Your task to perform on an android device: clear all cookies in the chrome app Image 0: 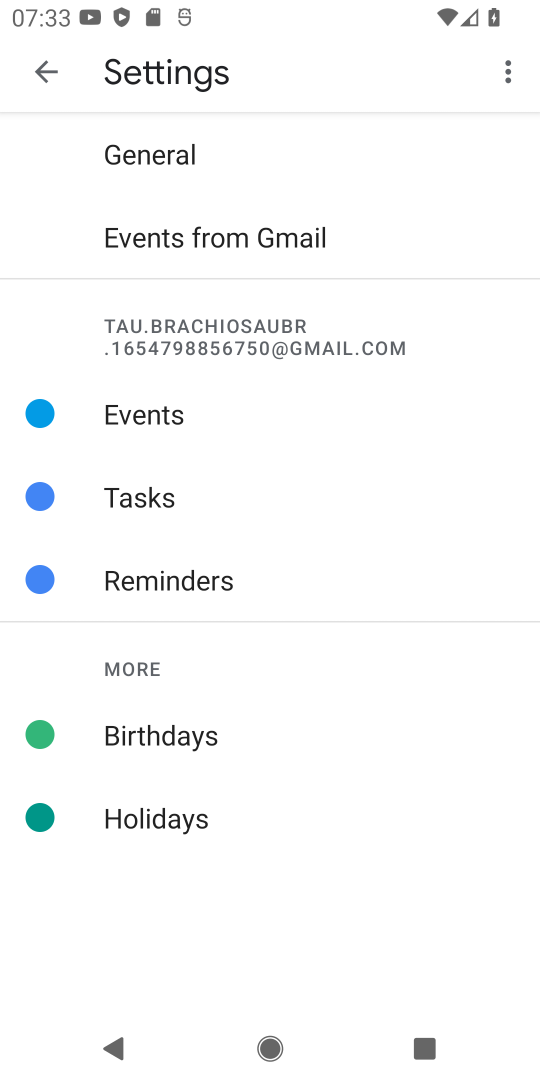
Step 0: press home button
Your task to perform on an android device: clear all cookies in the chrome app Image 1: 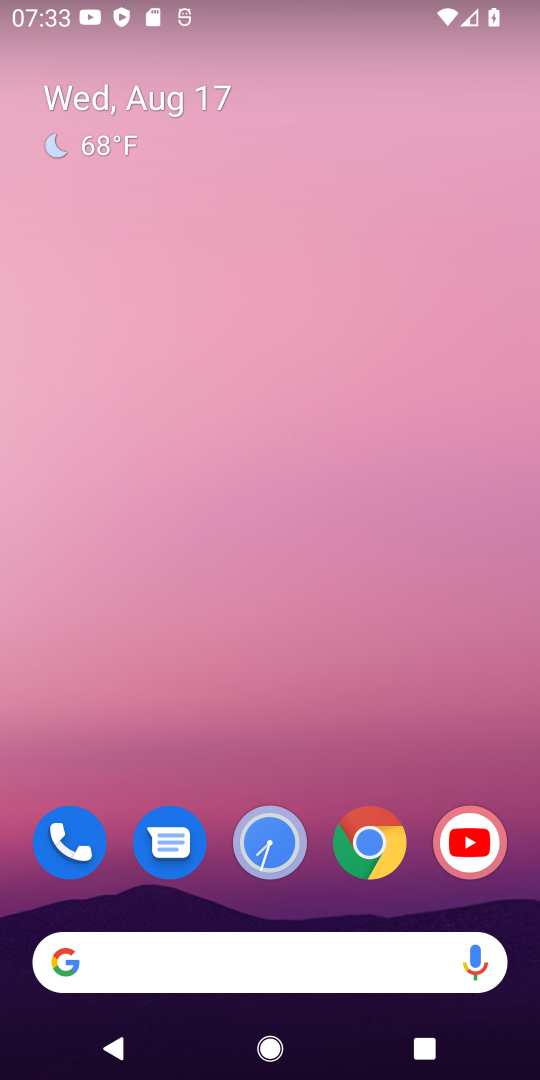
Step 1: click (366, 837)
Your task to perform on an android device: clear all cookies in the chrome app Image 2: 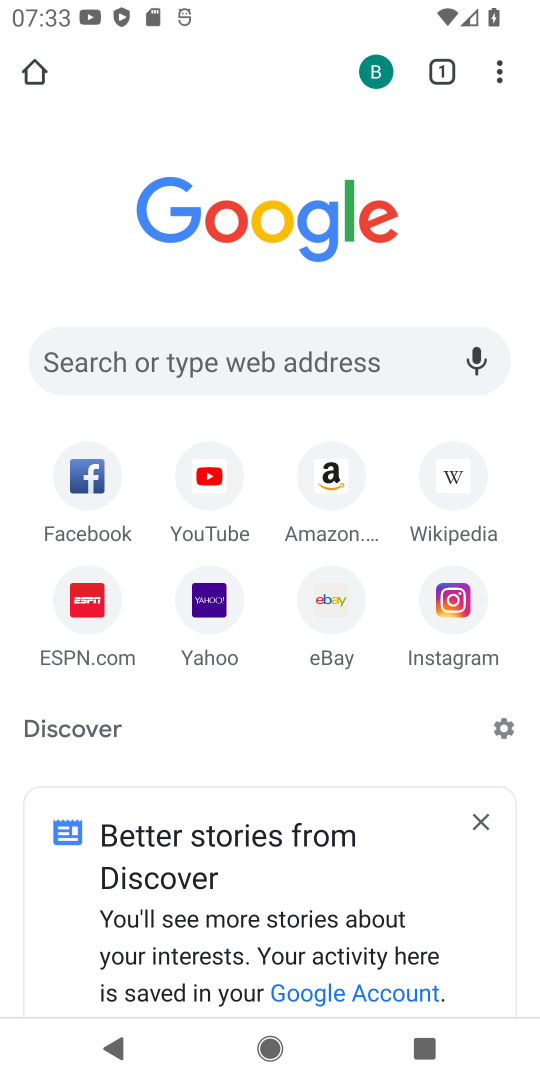
Step 2: click (500, 78)
Your task to perform on an android device: clear all cookies in the chrome app Image 3: 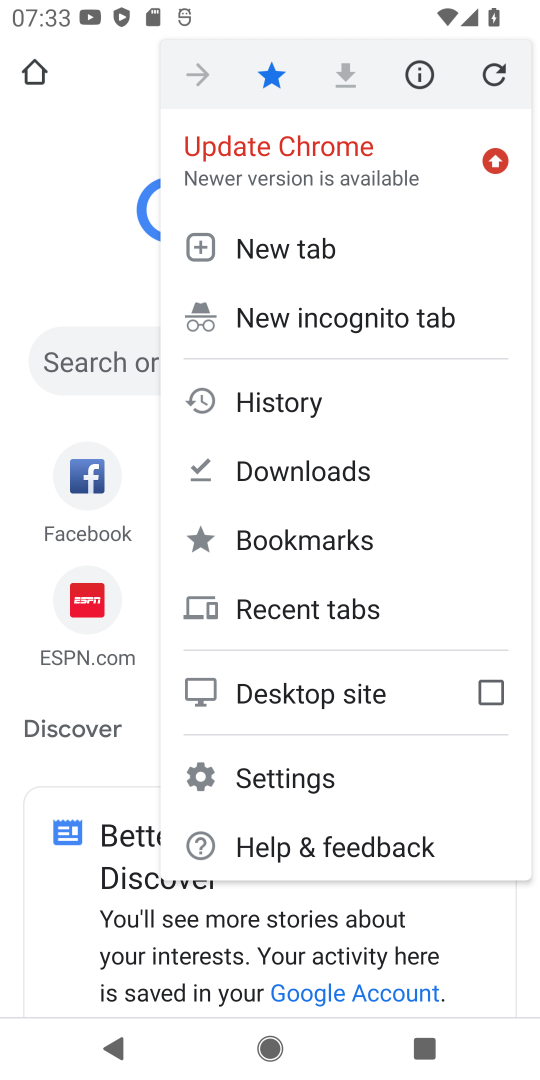
Step 3: click (314, 776)
Your task to perform on an android device: clear all cookies in the chrome app Image 4: 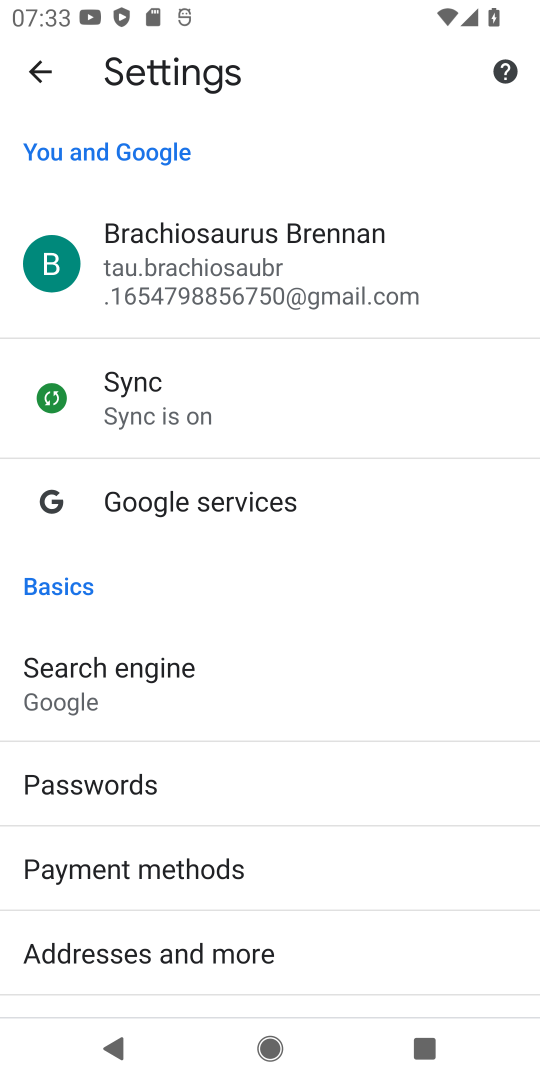
Step 4: drag from (285, 747) to (385, 76)
Your task to perform on an android device: clear all cookies in the chrome app Image 5: 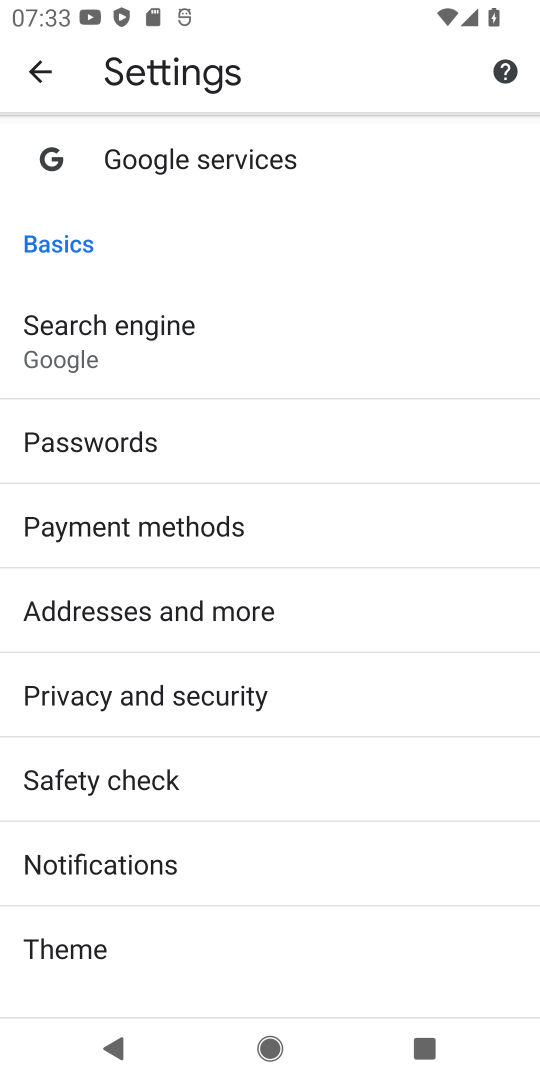
Step 5: click (266, 694)
Your task to perform on an android device: clear all cookies in the chrome app Image 6: 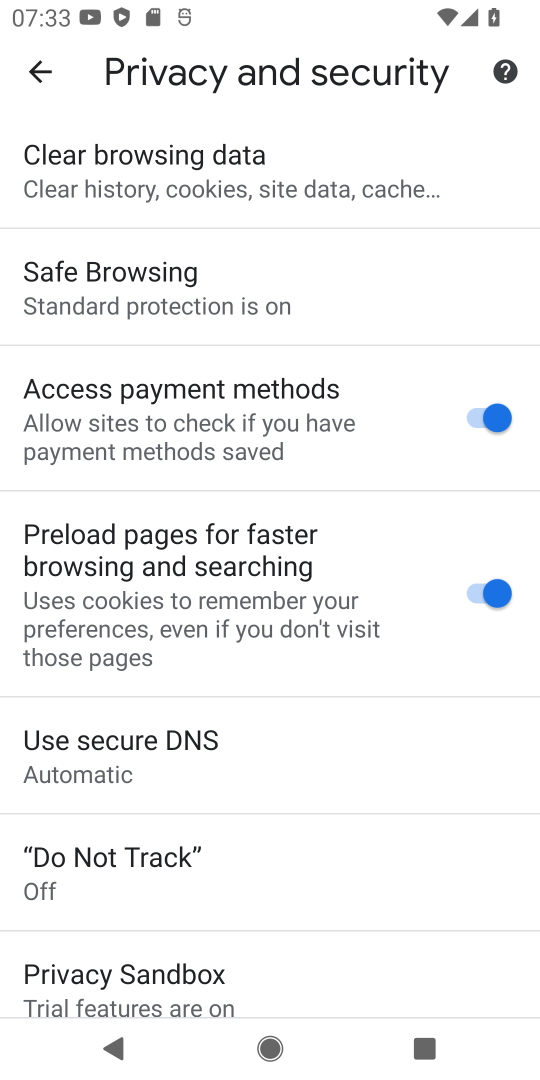
Step 6: drag from (275, 778) to (303, 205)
Your task to perform on an android device: clear all cookies in the chrome app Image 7: 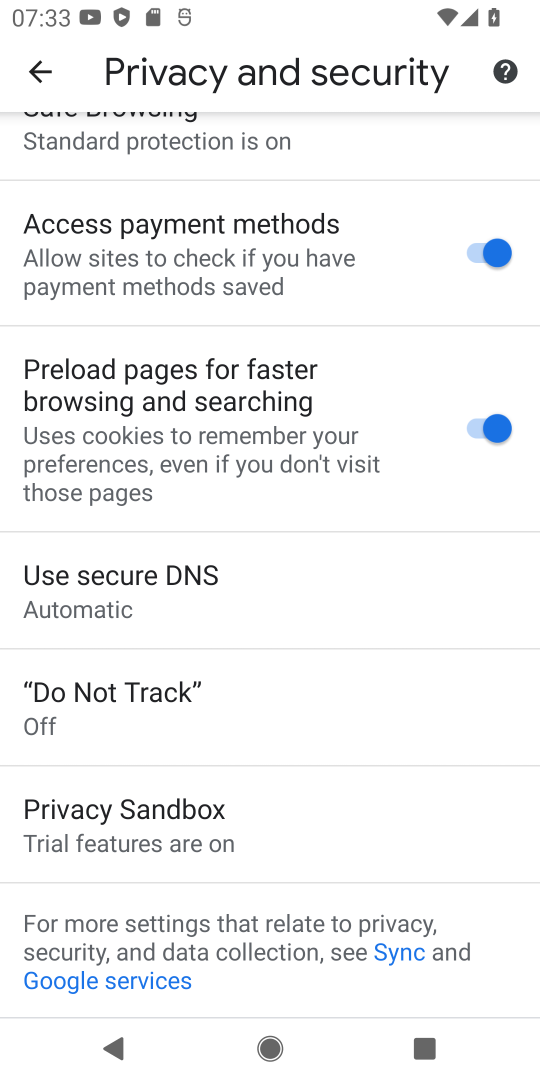
Step 7: drag from (261, 368) to (247, 879)
Your task to perform on an android device: clear all cookies in the chrome app Image 8: 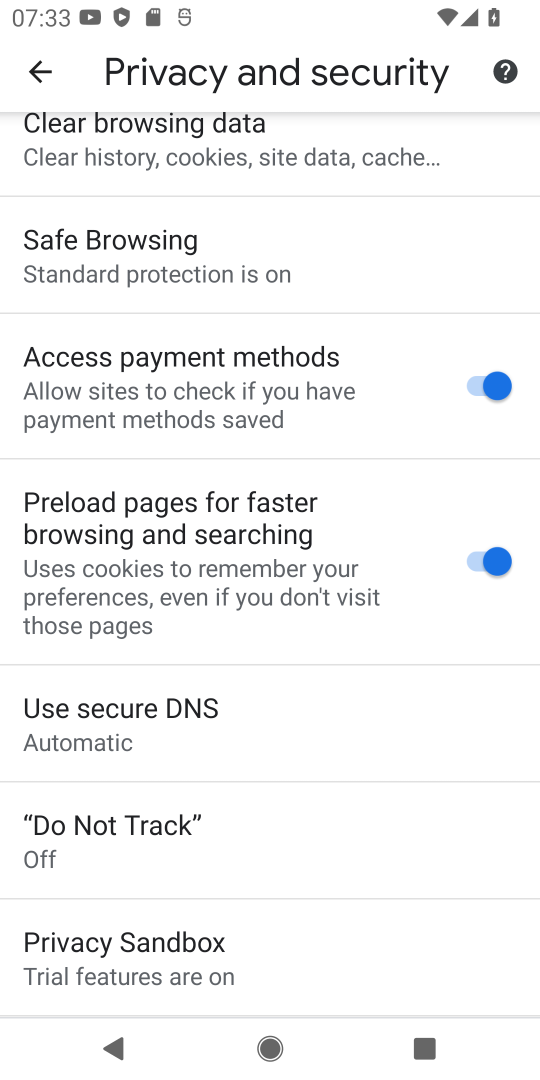
Step 8: click (266, 132)
Your task to perform on an android device: clear all cookies in the chrome app Image 9: 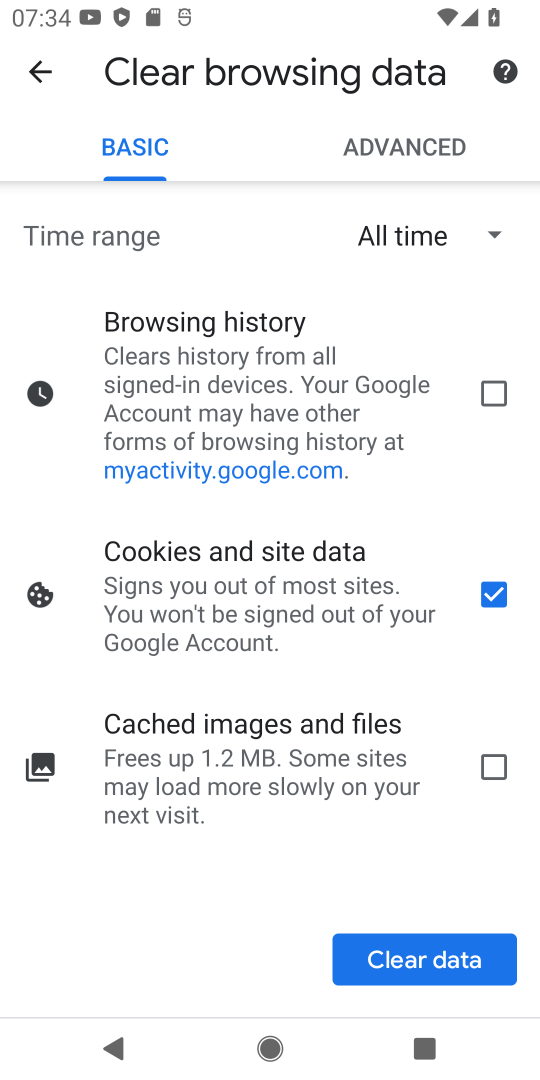
Step 9: click (413, 961)
Your task to perform on an android device: clear all cookies in the chrome app Image 10: 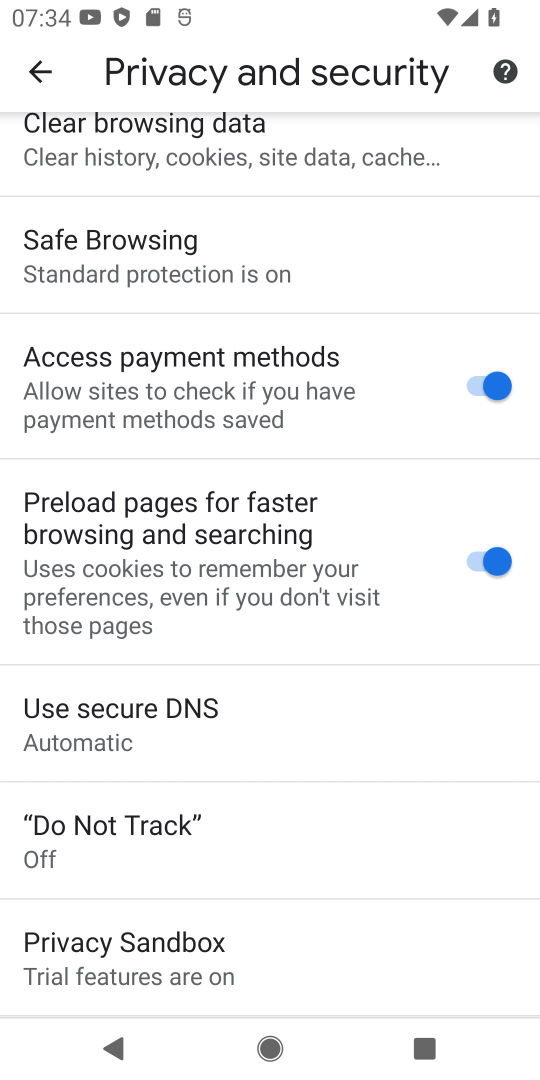
Step 10: task complete